Your task to perform on an android device: add a contact in the contacts app Image 0: 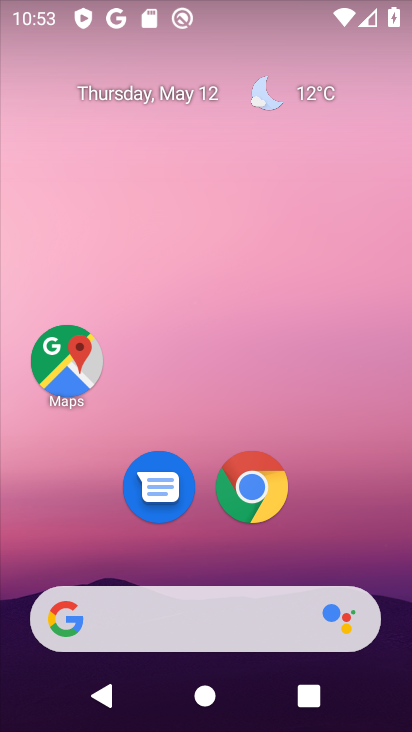
Step 0: drag from (349, 514) to (313, 8)
Your task to perform on an android device: add a contact in the contacts app Image 1: 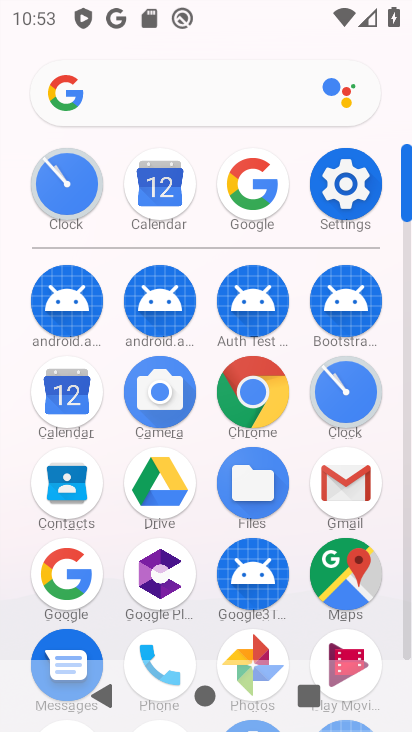
Step 1: click (78, 486)
Your task to perform on an android device: add a contact in the contacts app Image 2: 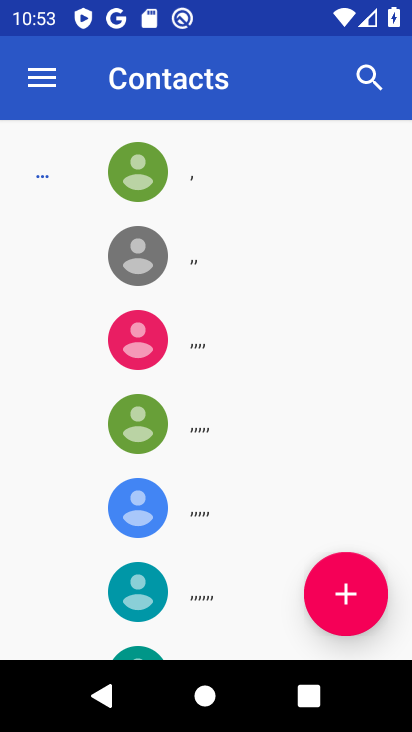
Step 2: click (352, 597)
Your task to perform on an android device: add a contact in the contacts app Image 3: 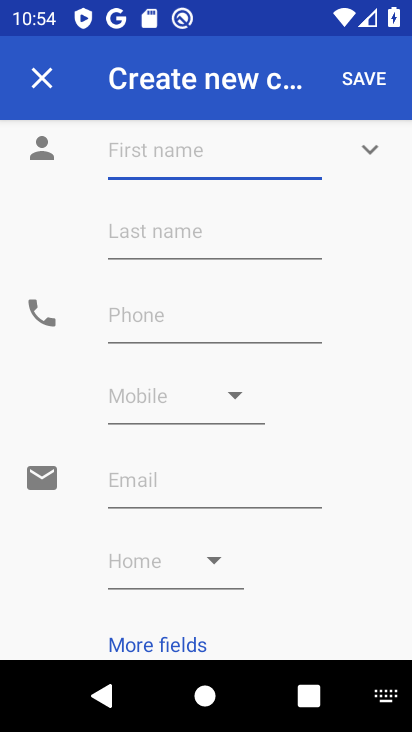
Step 3: click (180, 179)
Your task to perform on an android device: add a contact in the contacts app Image 4: 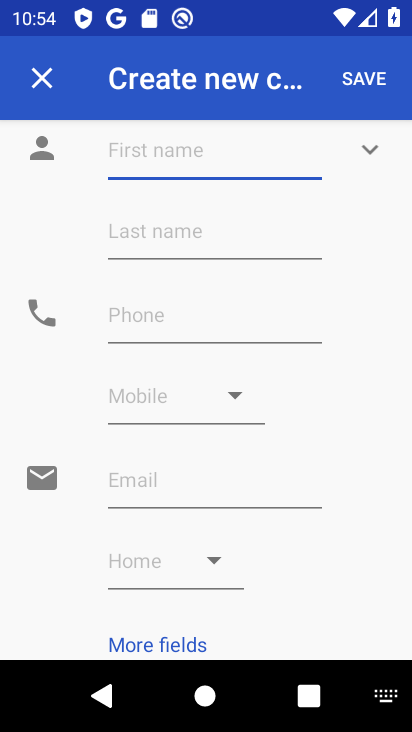
Step 4: type "neku"
Your task to perform on an android device: add a contact in the contacts app Image 5: 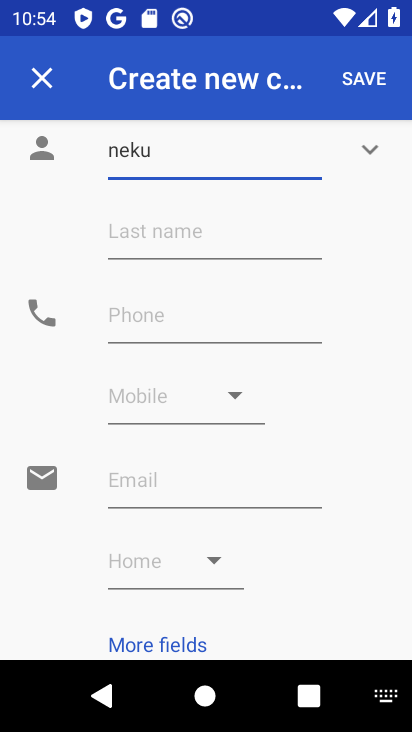
Step 5: click (225, 323)
Your task to perform on an android device: add a contact in the contacts app Image 6: 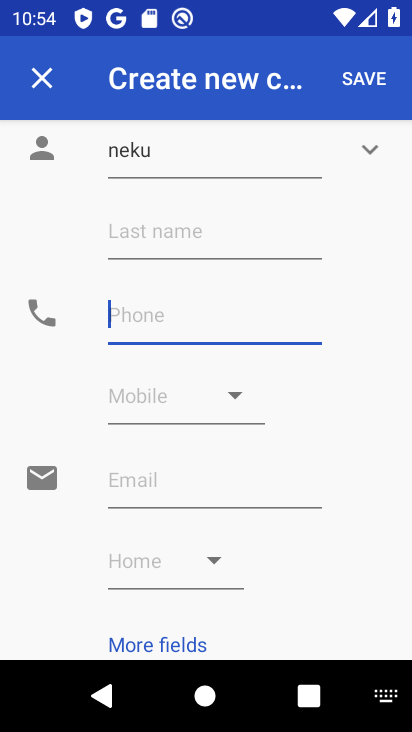
Step 6: type "98765443"
Your task to perform on an android device: add a contact in the contacts app Image 7: 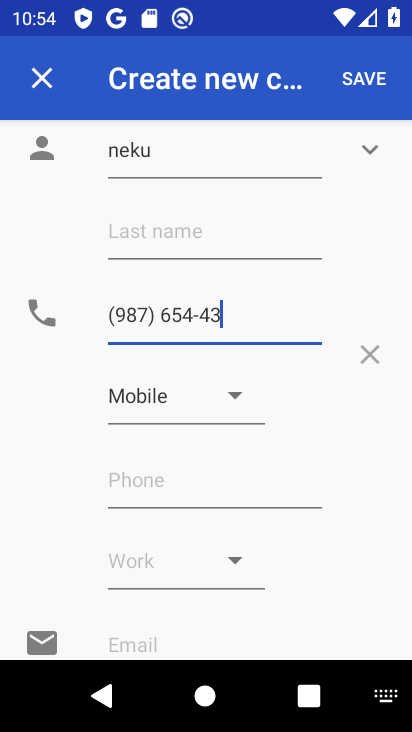
Step 7: click (349, 91)
Your task to perform on an android device: add a contact in the contacts app Image 8: 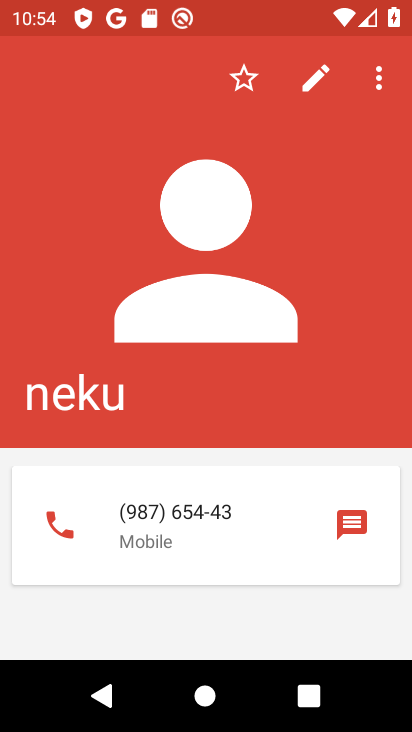
Step 8: task complete